Your task to perform on an android device: set default search engine in the chrome app Image 0: 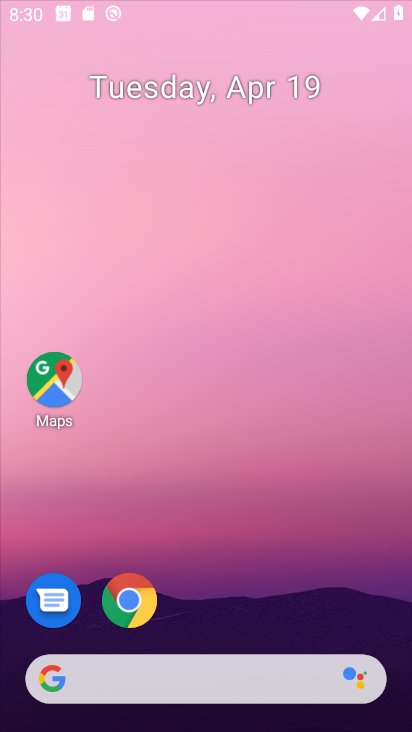
Step 0: click (271, 75)
Your task to perform on an android device: set default search engine in the chrome app Image 1: 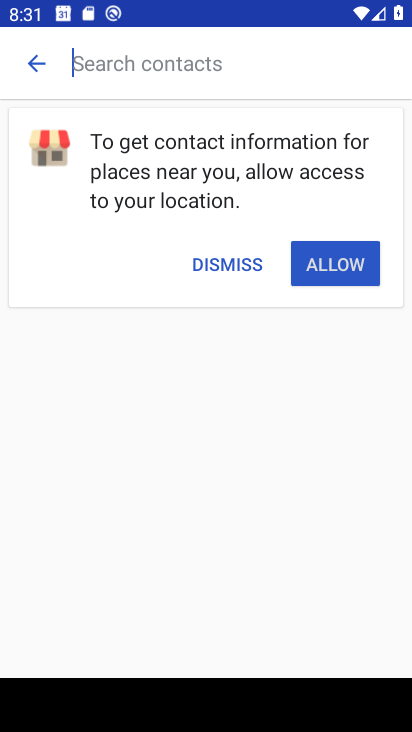
Step 1: press home button
Your task to perform on an android device: set default search engine in the chrome app Image 2: 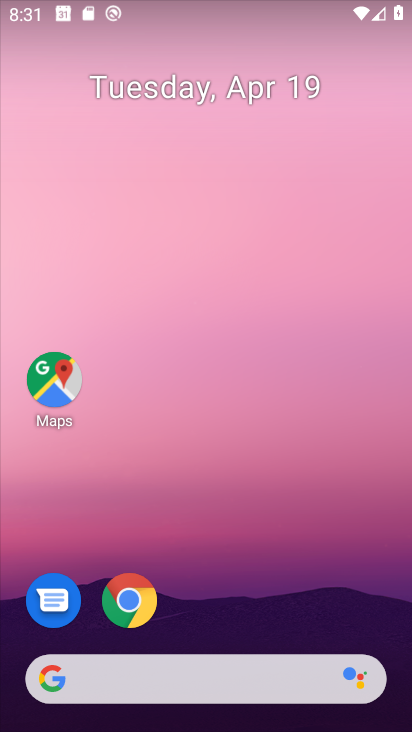
Step 2: drag from (284, 626) to (230, 33)
Your task to perform on an android device: set default search engine in the chrome app Image 3: 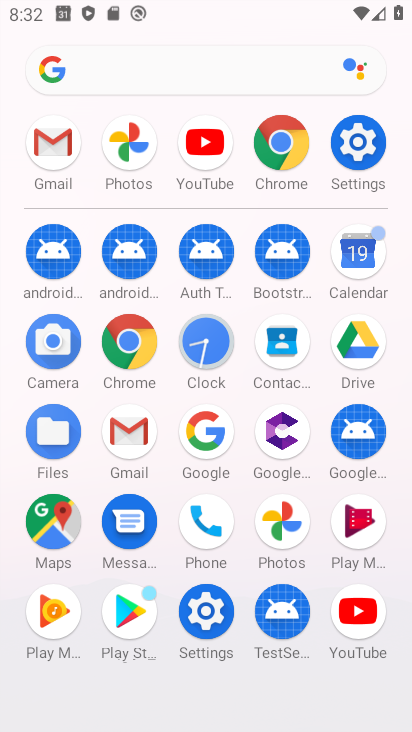
Step 3: click (121, 371)
Your task to perform on an android device: set default search engine in the chrome app Image 4: 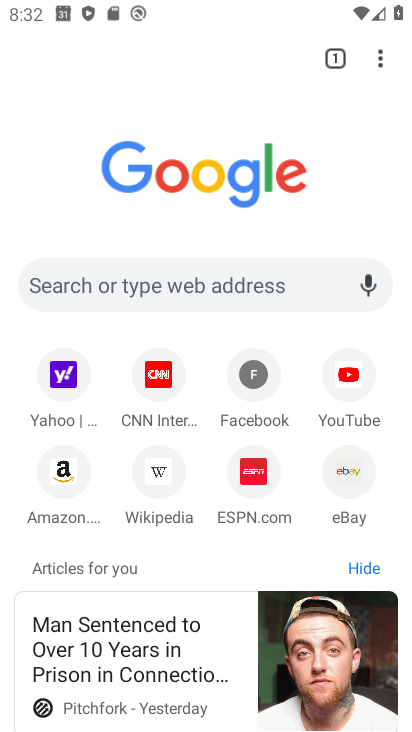
Step 4: click (389, 49)
Your task to perform on an android device: set default search engine in the chrome app Image 5: 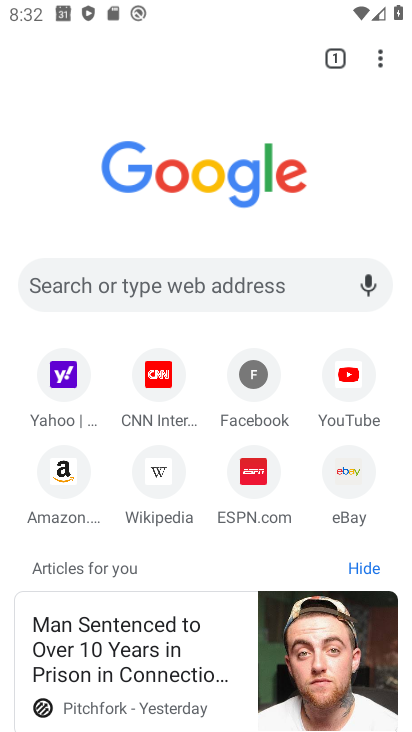
Step 5: click (381, 55)
Your task to perform on an android device: set default search engine in the chrome app Image 6: 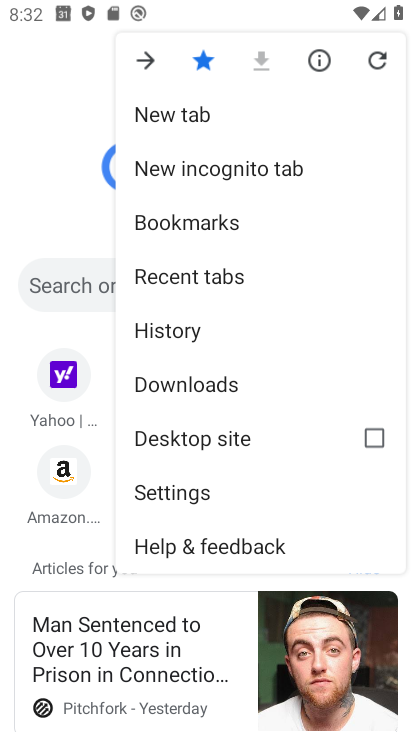
Step 6: click (211, 507)
Your task to perform on an android device: set default search engine in the chrome app Image 7: 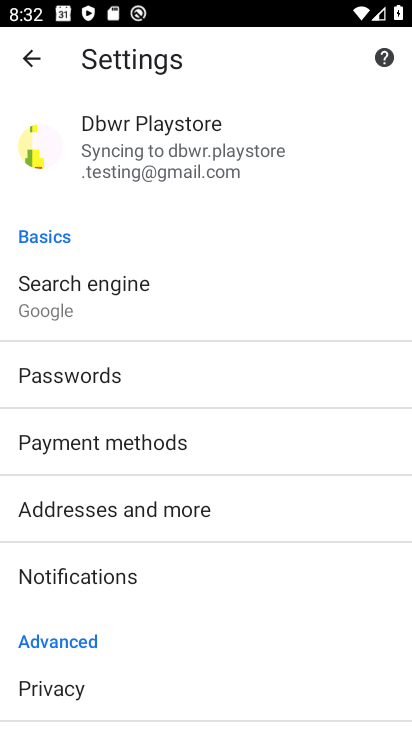
Step 7: drag from (79, 608) to (241, 264)
Your task to perform on an android device: set default search engine in the chrome app Image 8: 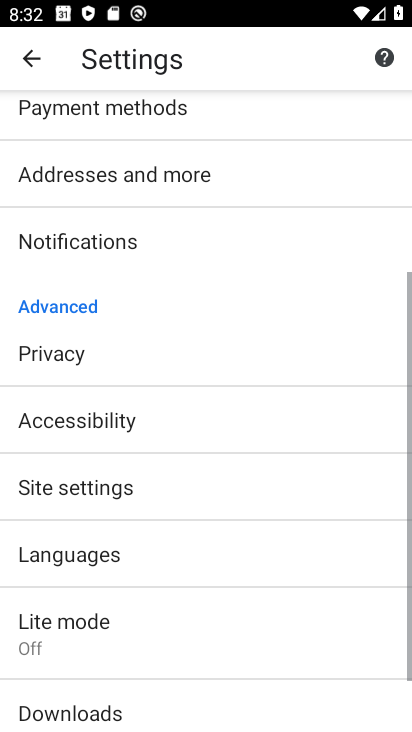
Step 8: drag from (202, 180) to (181, 495)
Your task to perform on an android device: set default search engine in the chrome app Image 9: 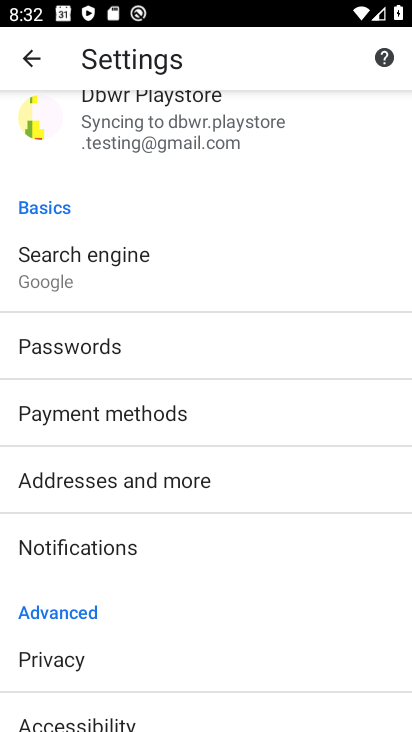
Step 9: click (117, 262)
Your task to perform on an android device: set default search engine in the chrome app Image 10: 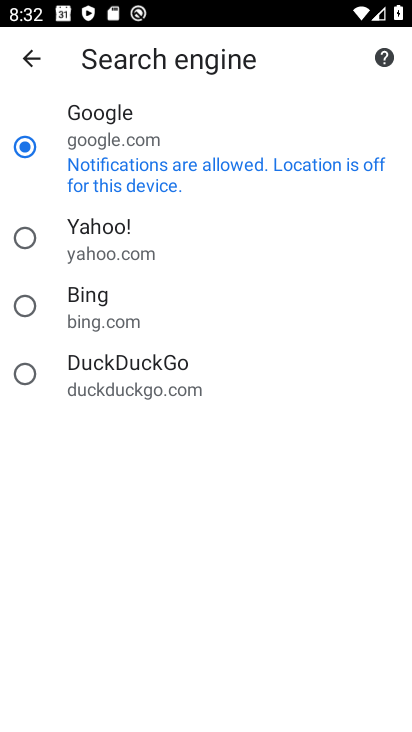
Step 10: click (117, 262)
Your task to perform on an android device: set default search engine in the chrome app Image 11: 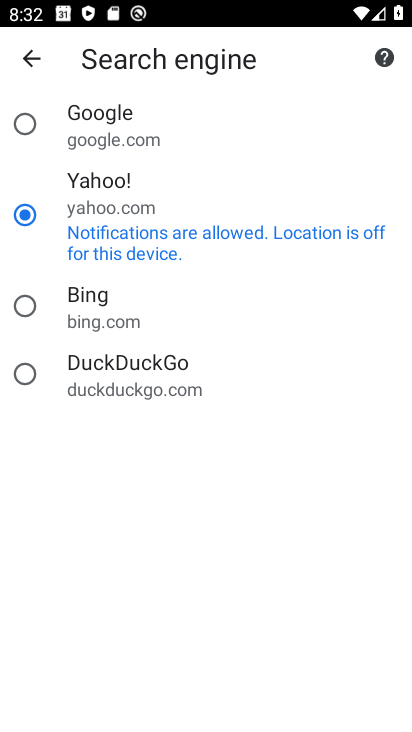
Step 11: task complete